Your task to perform on an android device: Open settings on Google Maps Image 0: 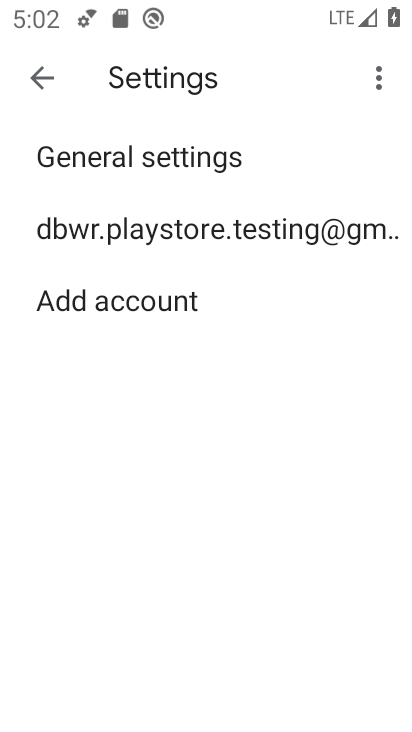
Step 0: press home button
Your task to perform on an android device: Open settings on Google Maps Image 1: 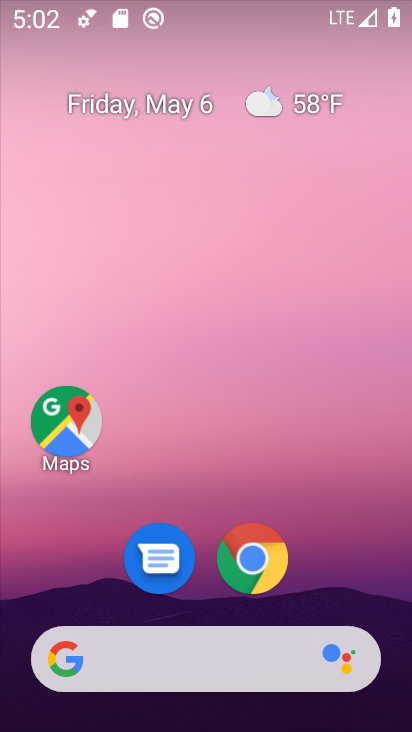
Step 1: drag from (338, 623) to (318, 12)
Your task to perform on an android device: Open settings on Google Maps Image 2: 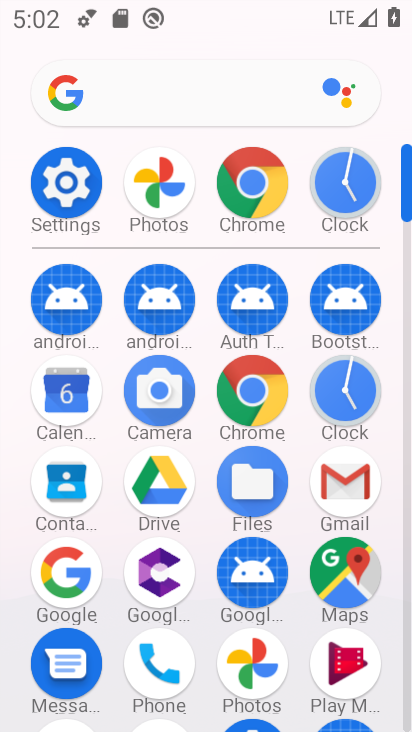
Step 2: click (338, 581)
Your task to perform on an android device: Open settings on Google Maps Image 3: 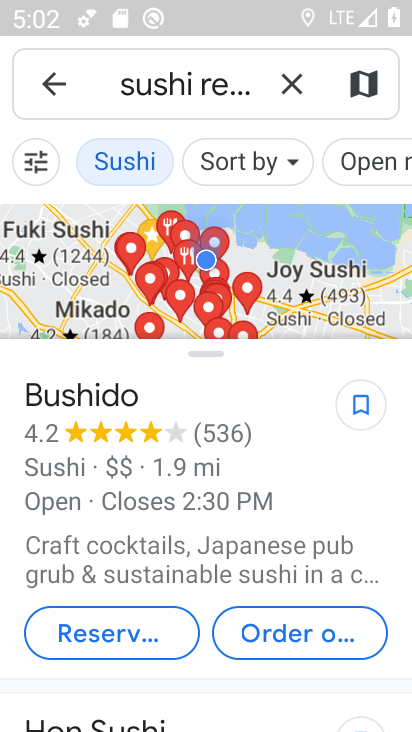
Step 3: press back button
Your task to perform on an android device: Open settings on Google Maps Image 4: 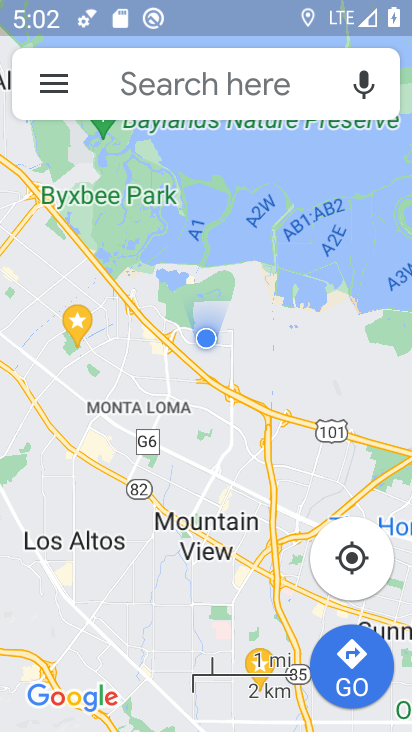
Step 4: click (53, 77)
Your task to perform on an android device: Open settings on Google Maps Image 5: 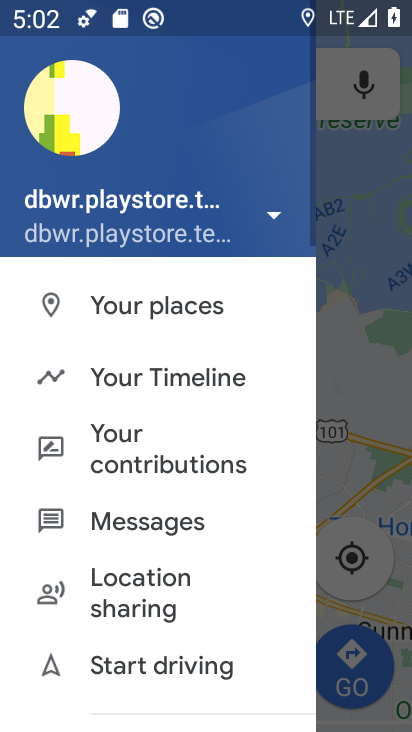
Step 5: drag from (235, 626) to (243, 139)
Your task to perform on an android device: Open settings on Google Maps Image 6: 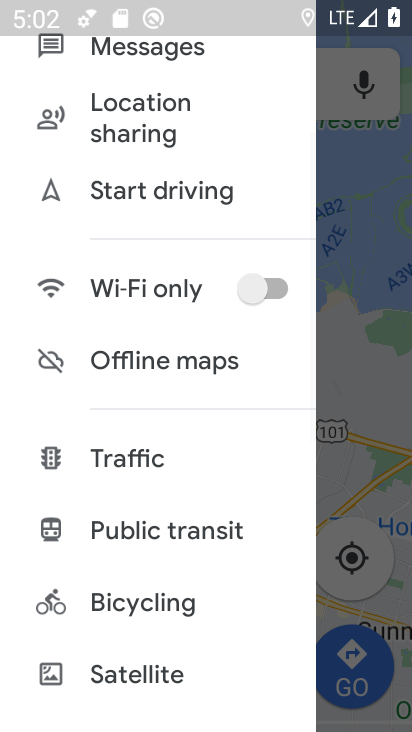
Step 6: drag from (210, 694) to (211, 158)
Your task to perform on an android device: Open settings on Google Maps Image 7: 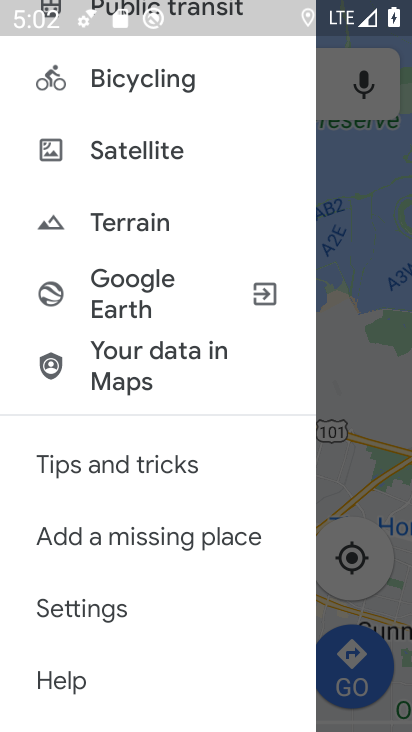
Step 7: drag from (203, 111) to (217, 731)
Your task to perform on an android device: Open settings on Google Maps Image 8: 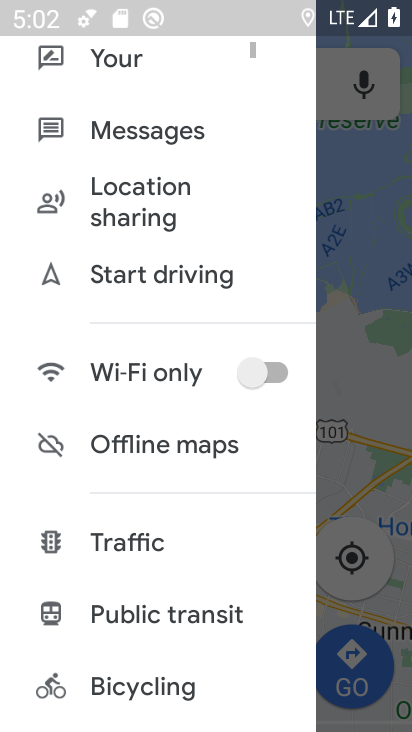
Step 8: drag from (166, 176) to (204, 597)
Your task to perform on an android device: Open settings on Google Maps Image 9: 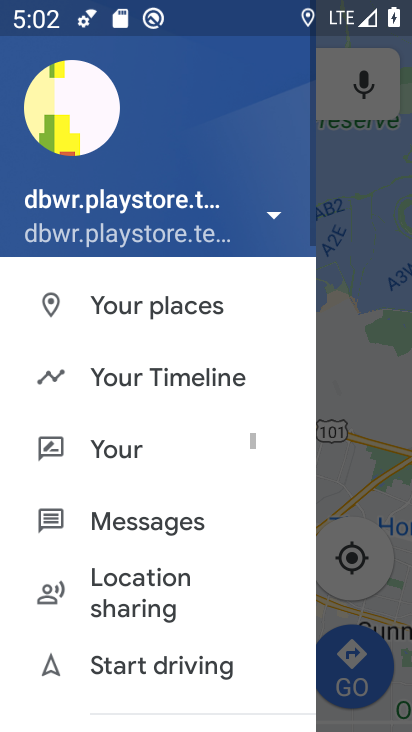
Step 9: click (204, 379)
Your task to perform on an android device: Open settings on Google Maps Image 10: 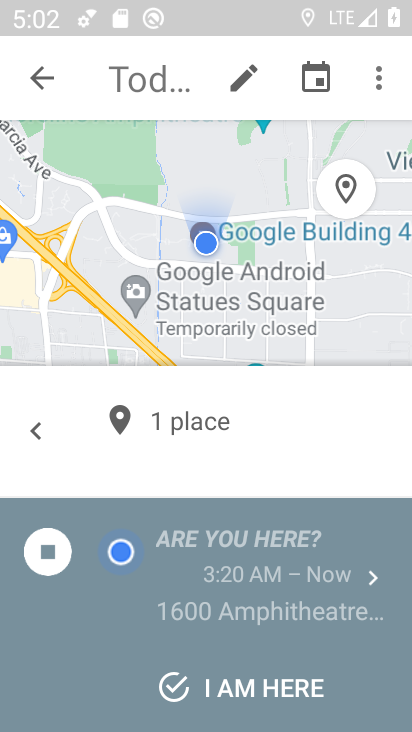
Step 10: click (383, 76)
Your task to perform on an android device: Open settings on Google Maps Image 11: 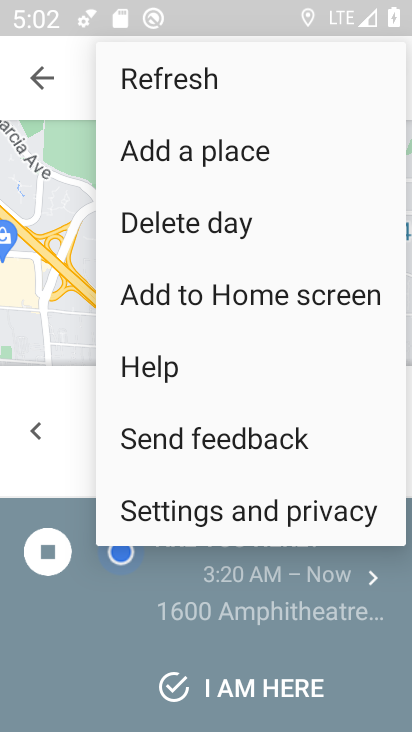
Step 11: click (284, 507)
Your task to perform on an android device: Open settings on Google Maps Image 12: 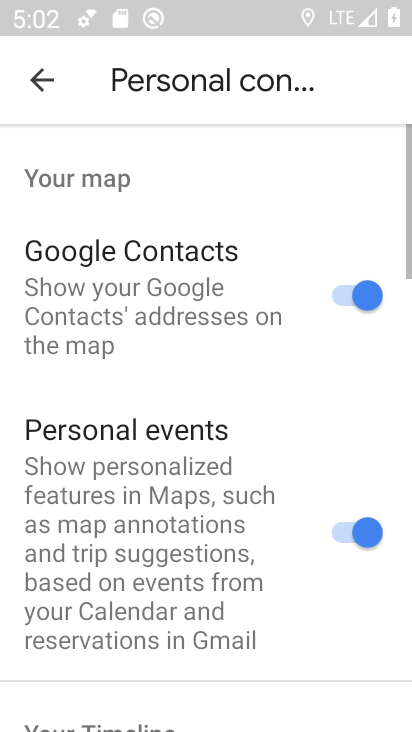
Step 12: task complete